Your task to perform on an android device: Show me recent news Image 0: 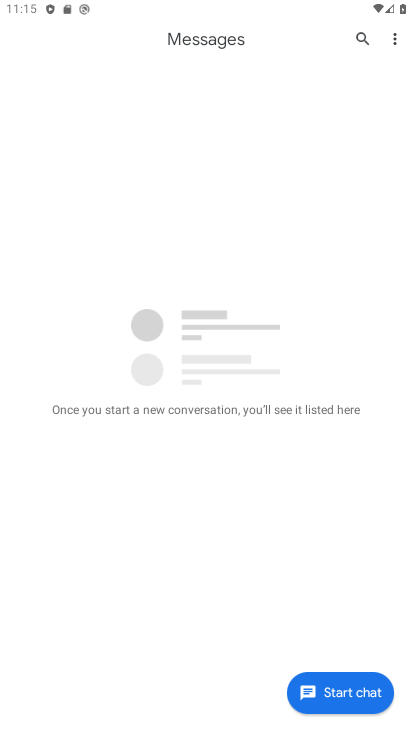
Step 0: press home button
Your task to perform on an android device: Show me recent news Image 1: 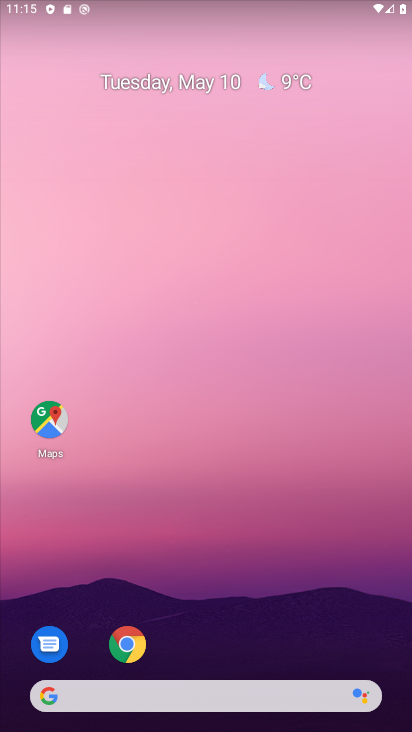
Step 1: click (172, 703)
Your task to perform on an android device: Show me recent news Image 2: 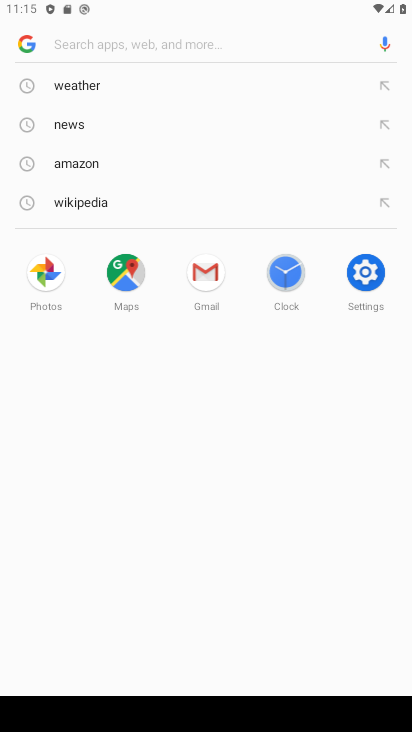
Step 2: type "recent news"
Your task to perform on an android device: Show me recent news Image 3: 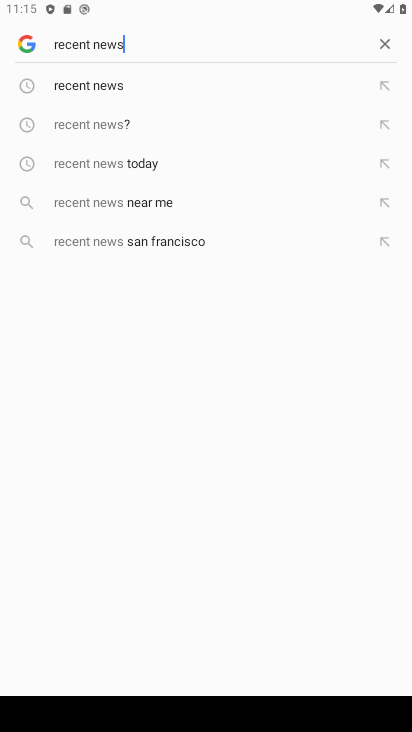
Step 3: click (103, 130)
Your task to perform on an android device: Show me recent news Image 4: 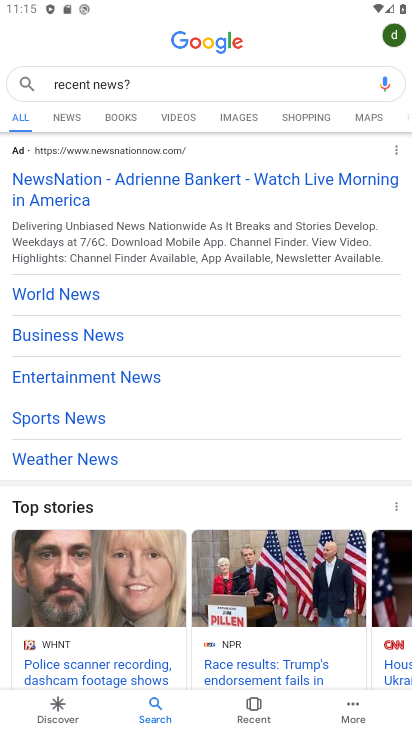
Step 4: task complete